Your task to perform on an android device: Add alienware area 51 to the cart on newegg.com Image 0: 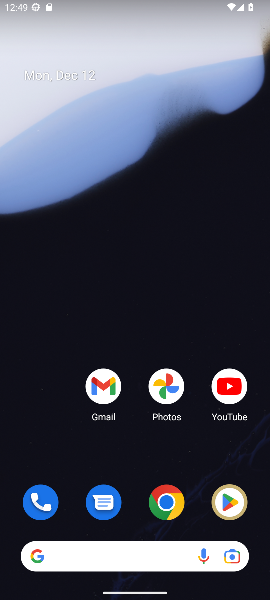
Step 0: click (167, 501)
Your task to perform on an android device: Add alienware area 51 to the cart on newegg.com Image 1: 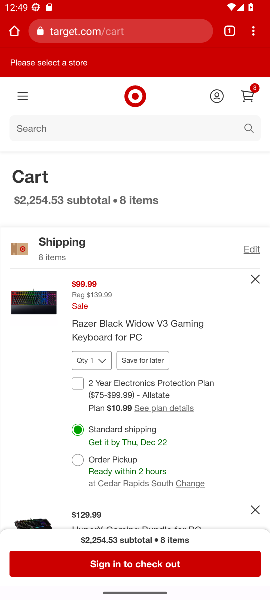
Step 1: click (167, 24)
Your task to perform on an android device: Add alienware area 51 to the cart on newegg.com Image 2: 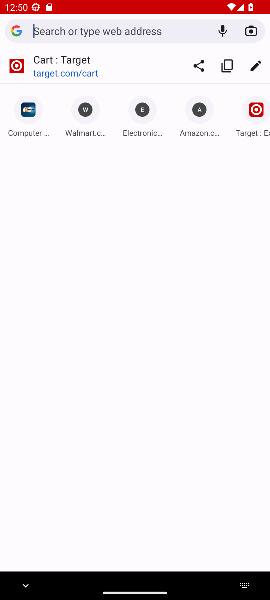
Step 2: type "newegg"
Your task to perform on an android device: Add alienware area 51 to the cart on newegg.com Image 3: 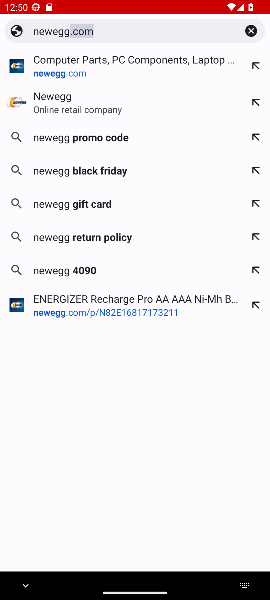
Step 3: click (142, 66)
Your task to perform on an android device: Add alienware area 51 to the cart on newegg.com Image 4: 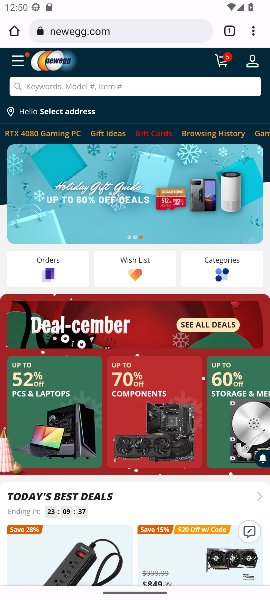
Step 4: click (146, 82)
Your task to perform on an android device: Add alienware area 51 to the cart on newegg.com Image 5: 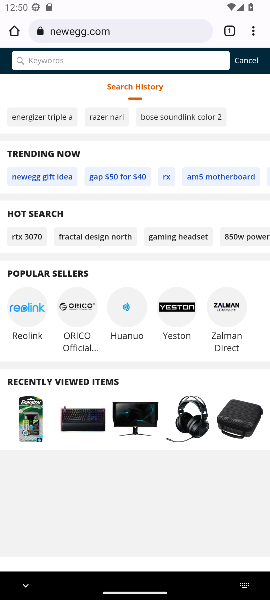
Step 5: type "alienware area 51"
Your task to perform on an android device: Add alienware area 51 to the cart on newegg.com Image 6: 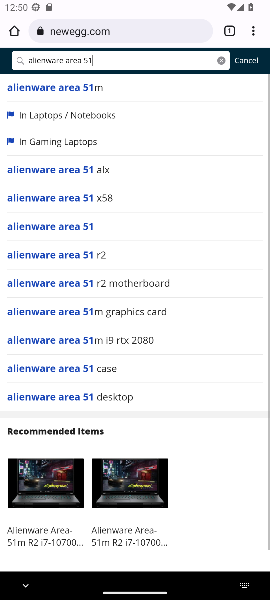
Step 6: click (140, 89)
Your task to perform on an android device: Add alienware area 51 to the cart on newegg.com Image 7: 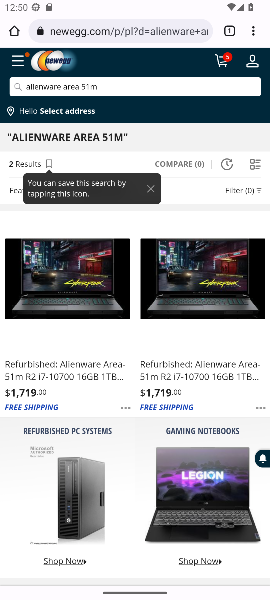
Step 7: click (171, 492)
Your task to perform on an android device: Add alienware area 51 to the cart on newegg.com Image 8: 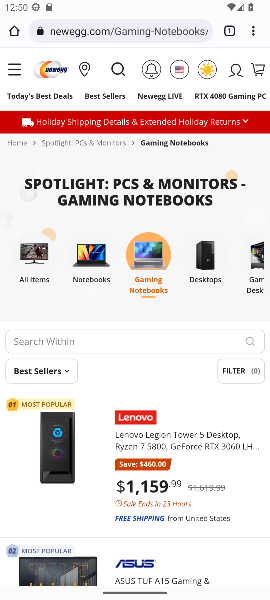
Step 8: click (193, 448)
Your task to perform on an android device: Add alienware area 51 to the cart on newegg.com Image 9: 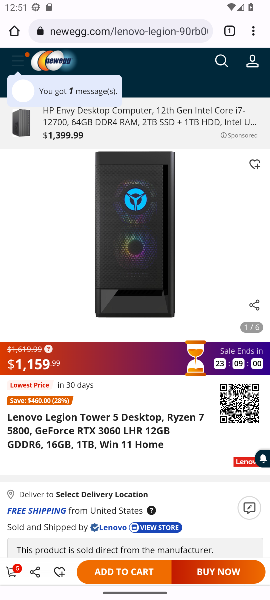
Step 9: click (116, 566)
Your task to perform on an android device: Add alienware area 51 to the cart on newegg.com Image 10: 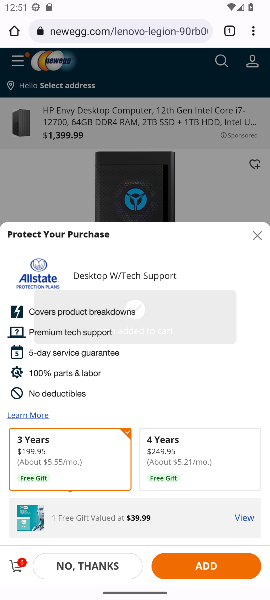
Step 10: task complete